Your task to perform on an android device: add a contact in the contacts app Image 0: 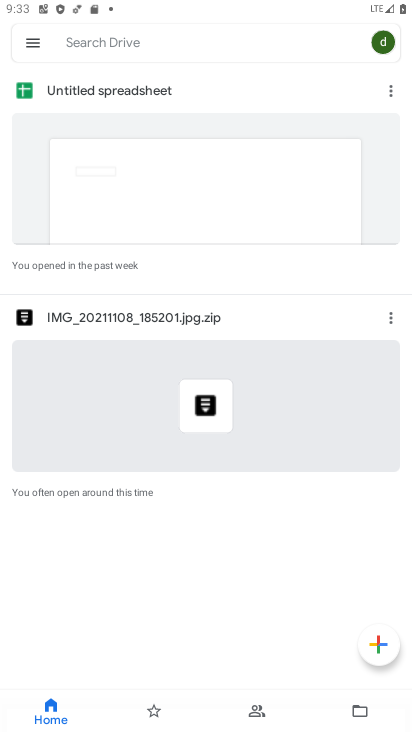
Step 0: press home button
Your task to perform on an android device: add a contact in the contacts app Image 1: 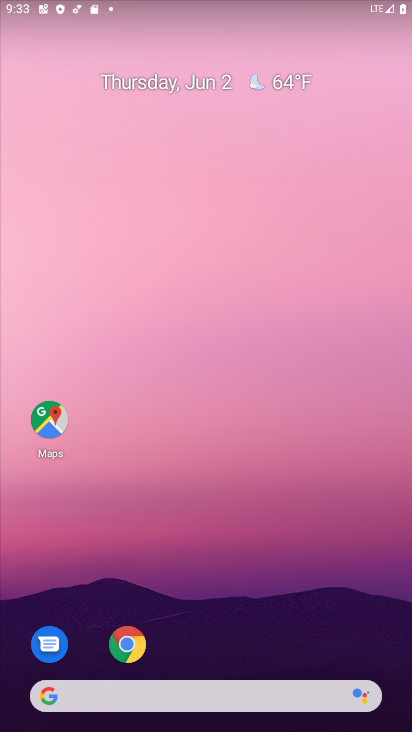
Step 1: drag from (316, 621) to (276, 37)
Your task to perform on an android device: add a contact in the contacts app Image 2: 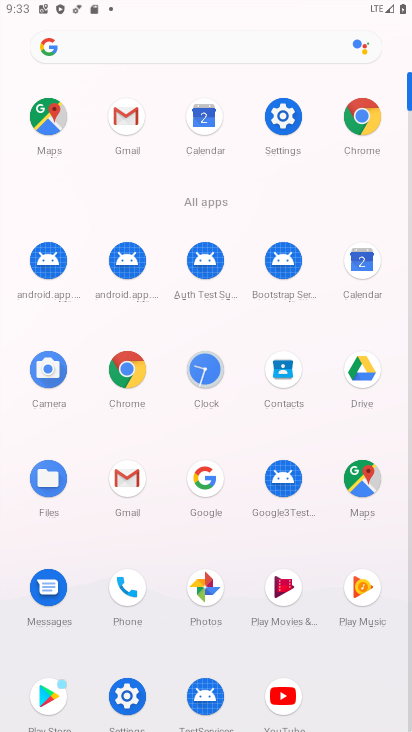
Step 2: click (283, 385)
Your task to perform on an android device: add a contact in the contacts app Image 3: 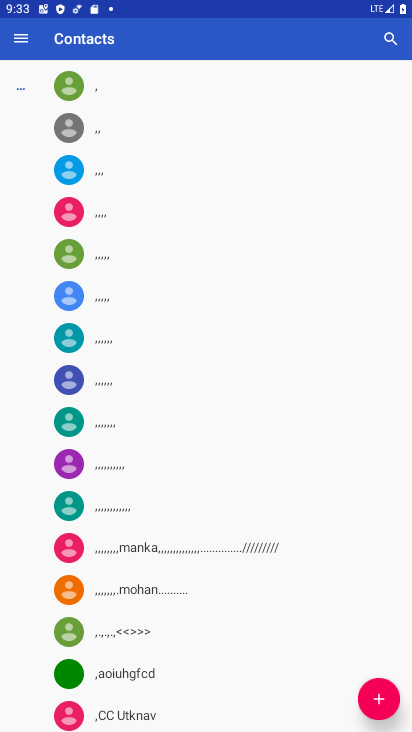
Step 3: click (387, 696)
Your task to perform on an android device: add a contact in the contacts app Image 4: 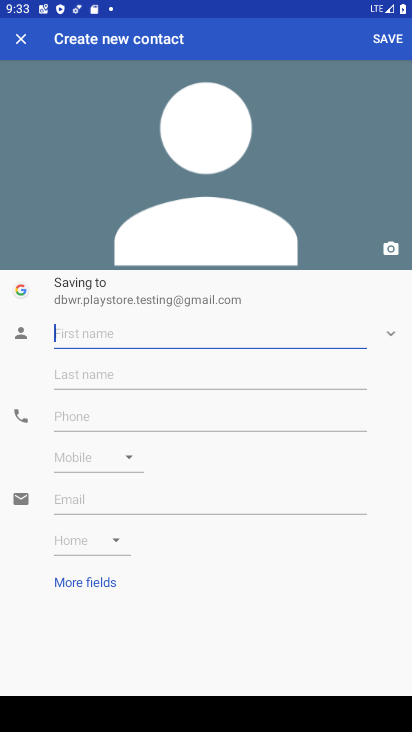
Step 4: type "sdfghjkl;"
Your task to perform on an android device: add a contact in the contacts app Image 5: 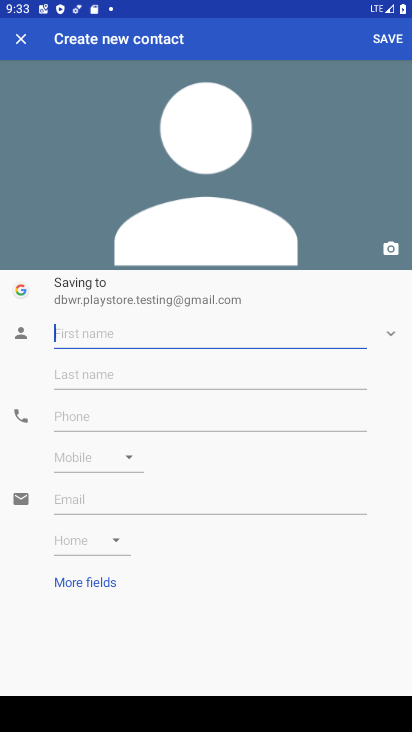
Step 5: click (129, 407)
Your task to perform on an android device: add a contact in the contacts app Image 6: 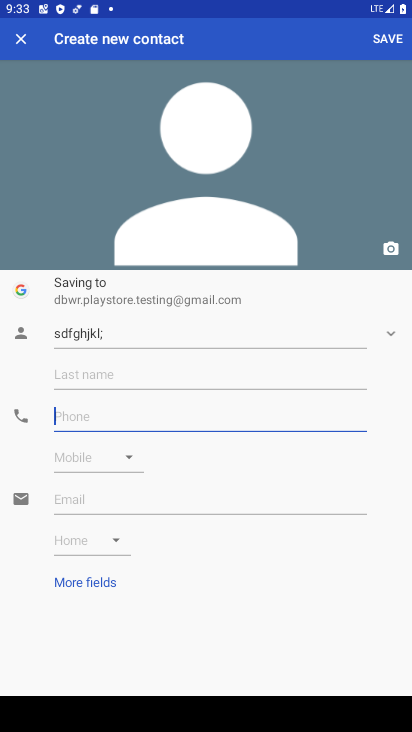
Step 6: type "-09876543"
Your task to perform on an android device: add a contact in the contacts app Image 7: 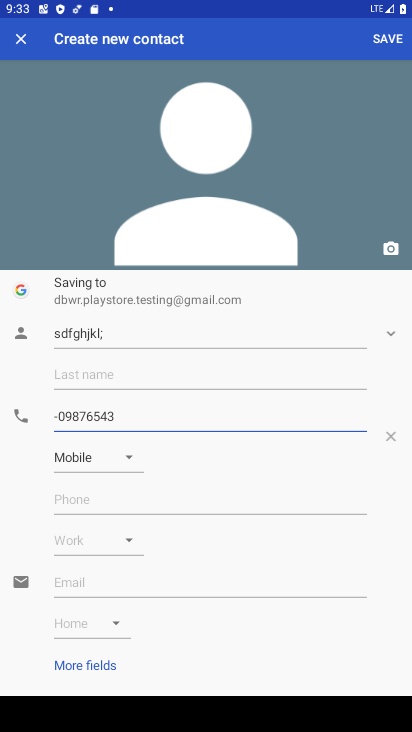
Step 7: click (384, 40)
Your task to perform on an android device: add a contact in the contacts app Image 8: 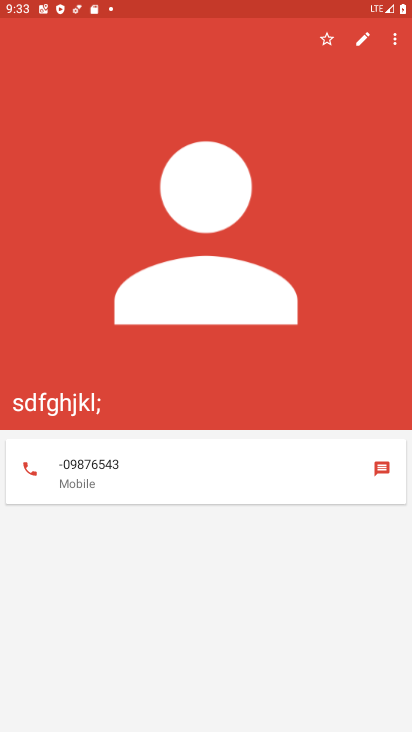
Step 8: task complete